Your task to perform on an android device: turn notification dots off Image 0: 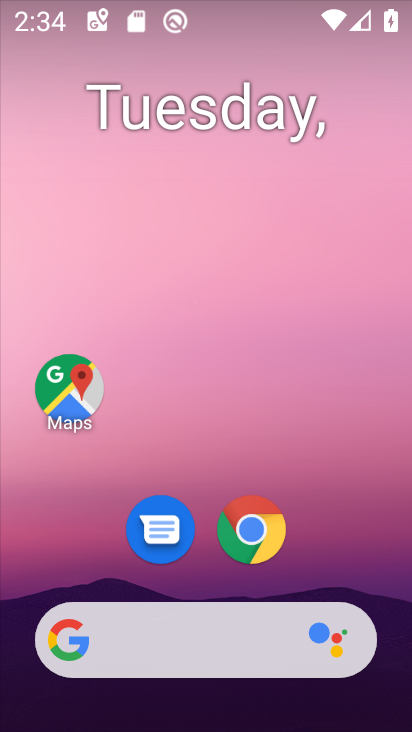
Step 0: drag from (298, 539) to (298, 209)
Your task to perform on an android device: turn notification dots off Image 1: 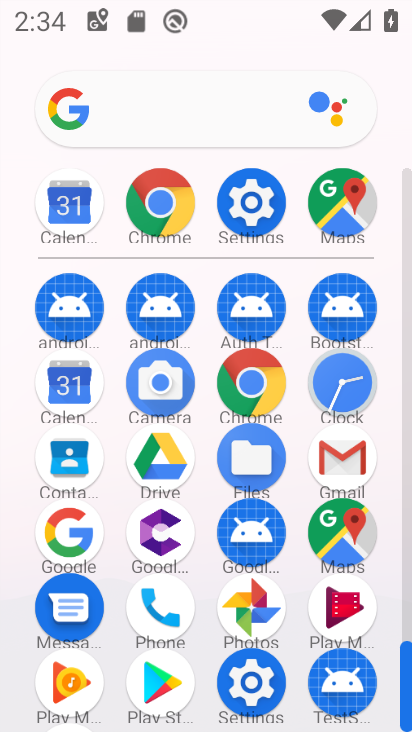
Step 1: click (236, 671)
Your task to perform on an android device: turn notification dots off Image 2: 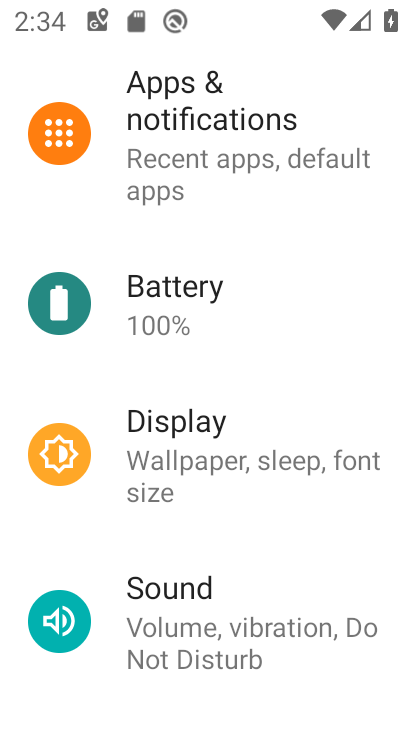
Step 2: click (179, 128)
Your task to perform on an android device: turn notification dots off Image 3: 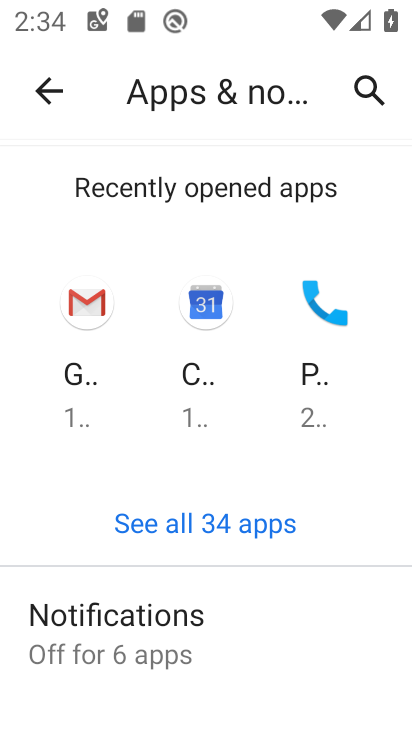
Step 3: drag from (211, 570) to (232, 447)
Your task to perform on an android device: turn notification dots off Image 4: 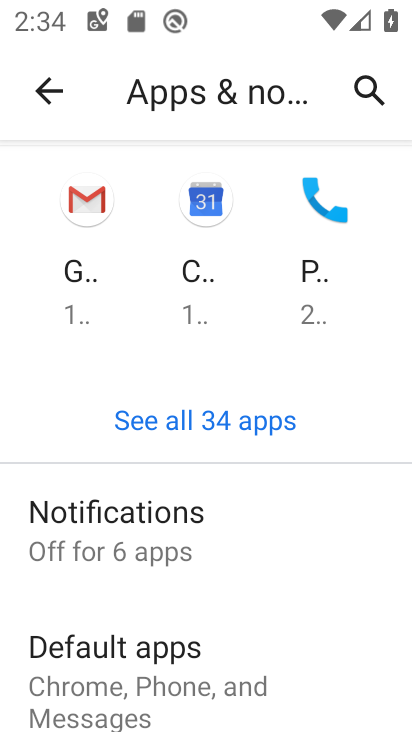
Step 4: click (206, 483)
Your task to perform on an android device: turn notification dots off Image 5: 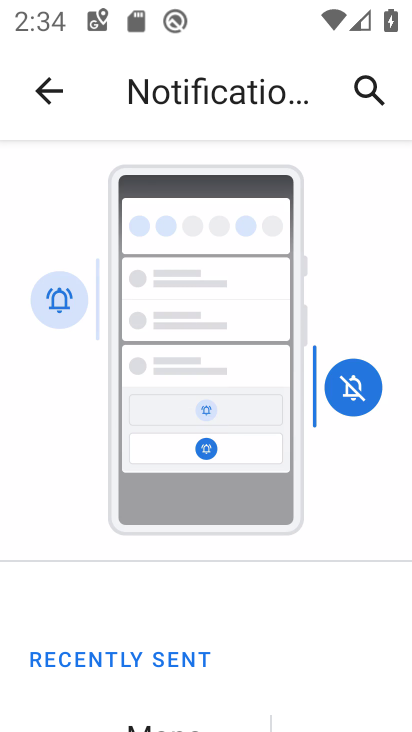
Step 5: click (50, 80)
Your task to perform on an android device: turn notification dots off Image 6: 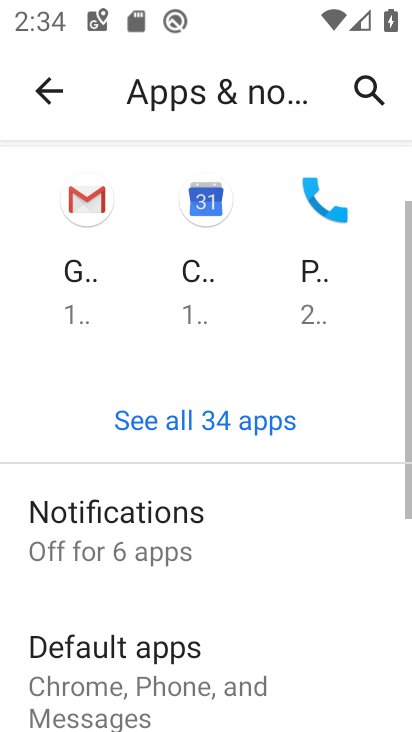
Step 6: click (50, 80)
Your task to perform on an android device: turn notification dots off Image 7: 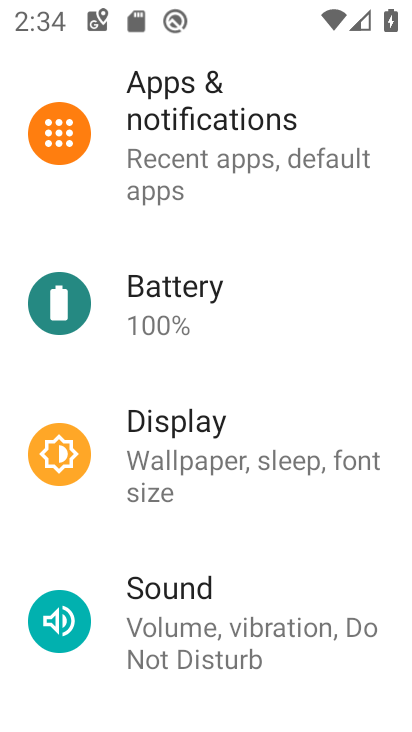
Step 7: drag from (224, 120) to (188, 532)
Your task to perform on an android device: turn notification dots off Image 8: 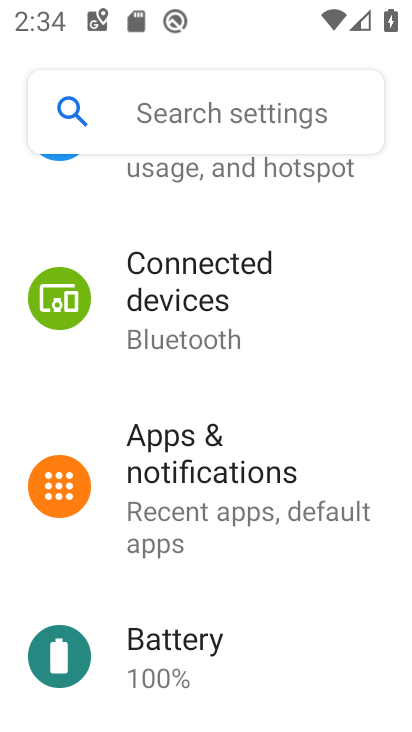
Step 8: click (193, 116)
Your task to perform on an android device: turn notification dots off Image 9: 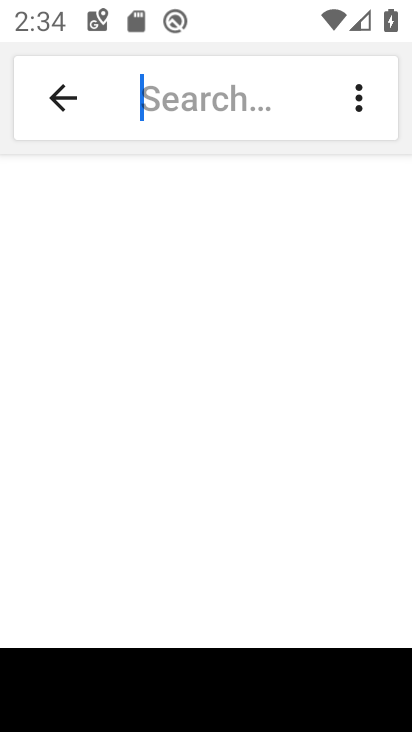
Step 9: click (247, 95)
Your task to perform on an android device: turn notification dots off Image 10: 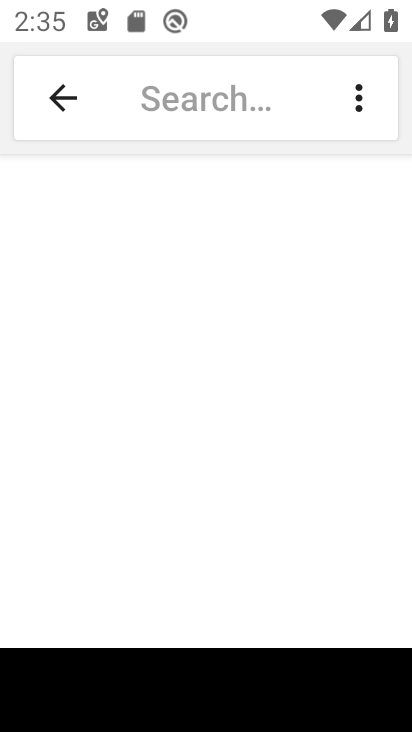
Step 10: type "notification dots"
Your task to perform on an android device: turn notification dots off Image 11: 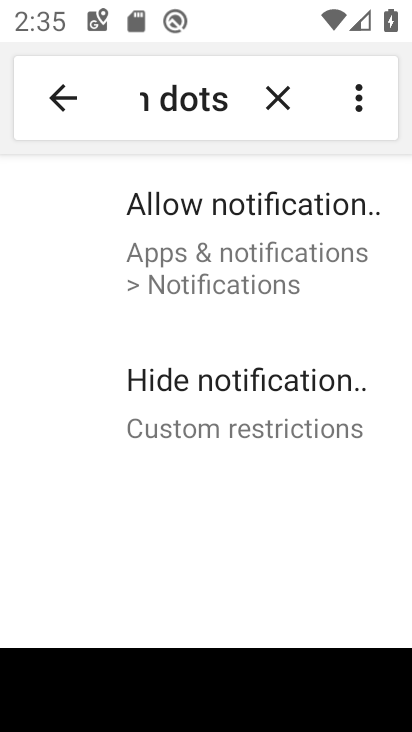
Step 11: click (182, 239)
Your task to perform on an android device: turn notification dots off Image 12: 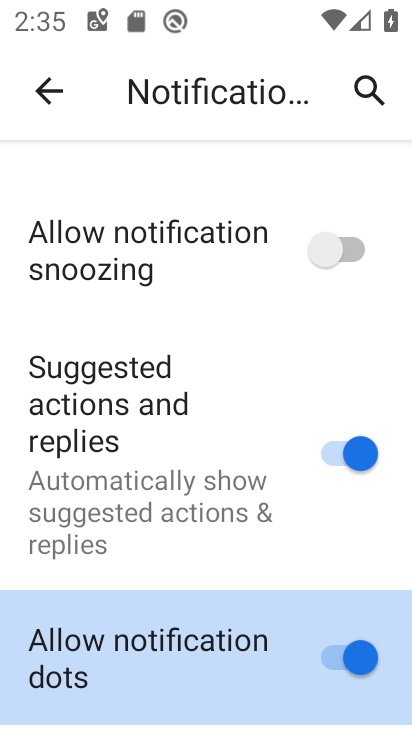
Step 12: click (337, 651)
Your task to perform on an android device: turn notification dots off Image 13: 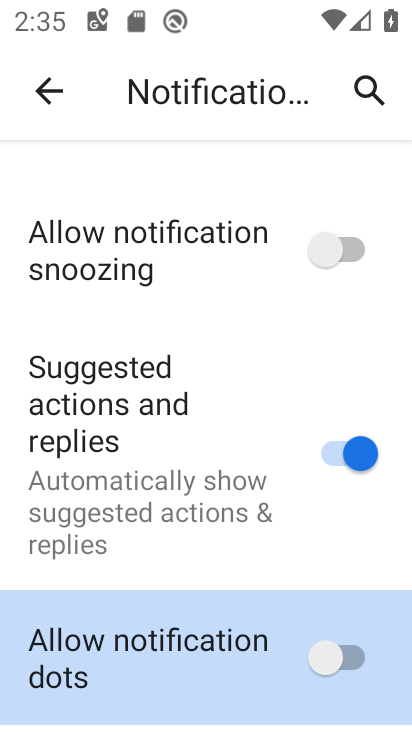
Step 13: task complete